Your task to perform on an android device: Set the phone to "Do not disturb". Image 0: 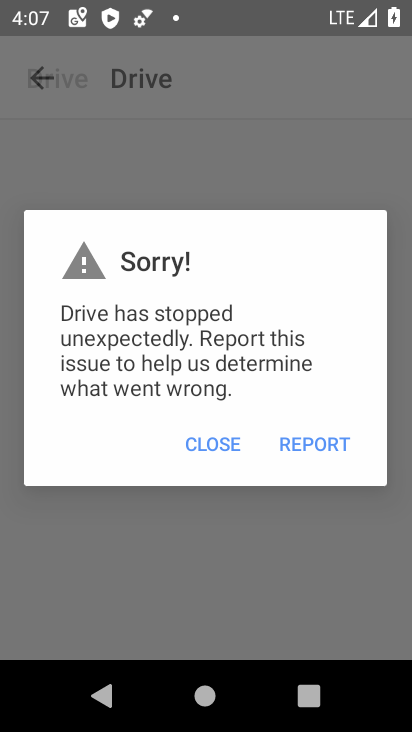
Step 0: drag from (205, 649) to (288, 248)
Your task to perform on an android device: Set the phone to "Do not disturb". Image 1: 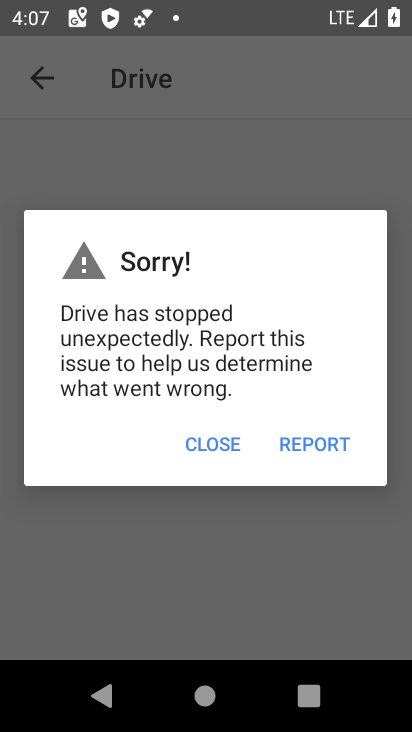
Step 1: press home button
Your task to perform on an android device: Set the phone to "Do not disturb". Image 2: 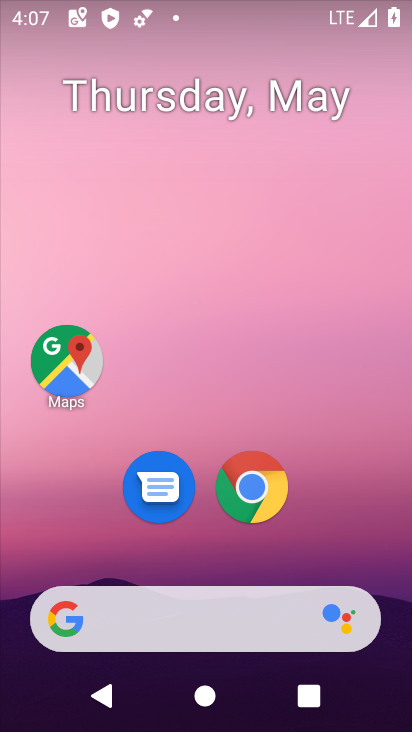
Step 2: drag from (282, 18) to (204, 467)
Your task to perform on an android device: Set the phone to "Do not disturb". Image 3: 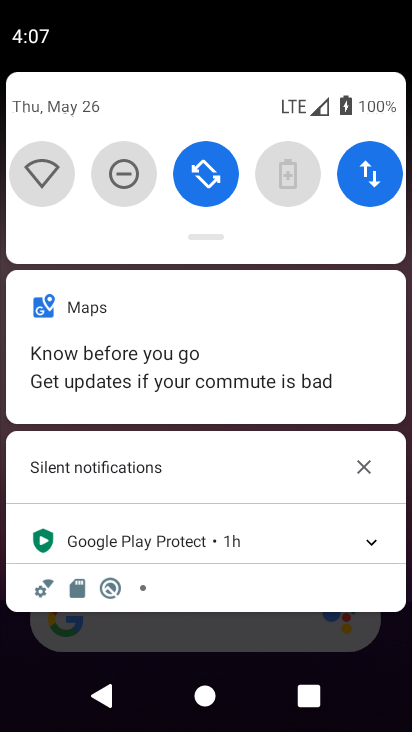
Step 3: click (116, 177)
Your task to perform on an android device: Set the phone to "Do not disturb". Image 4: 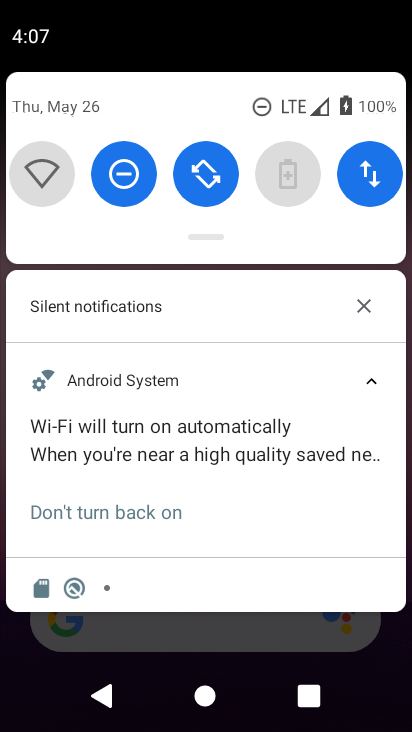
Step 4: task complete